Your task to perform on an android device: Is it going to rain today? Image 0: 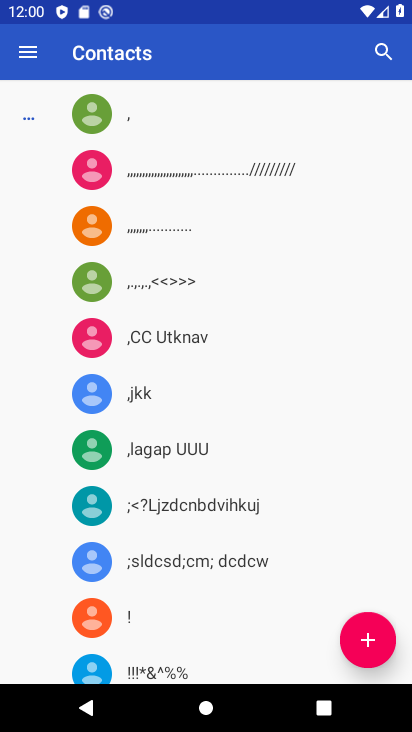
Step 0: press home button
Your task to perform on an android device: Is it going to rain today? Image 1: 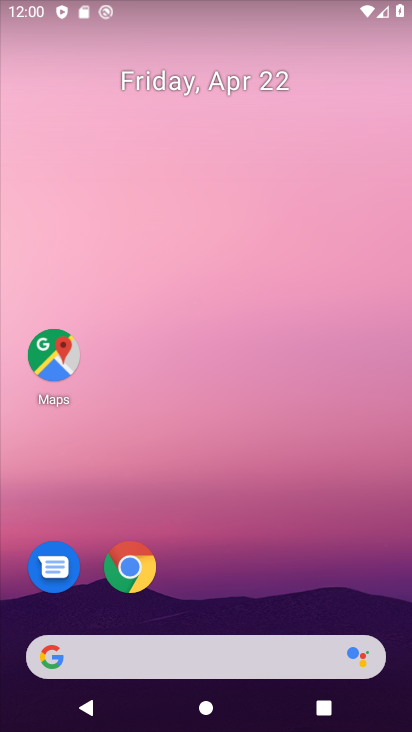
Step 1: click (137, 579)
Your task to perform on an android device: Is it going to rain today? Image 2: 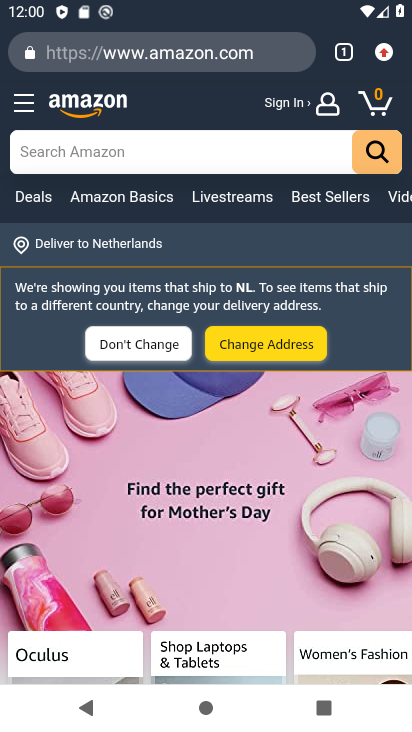
Step 2: click (190, 50)
Your task to perform on an android device: Is it going to rain today? Image 3: 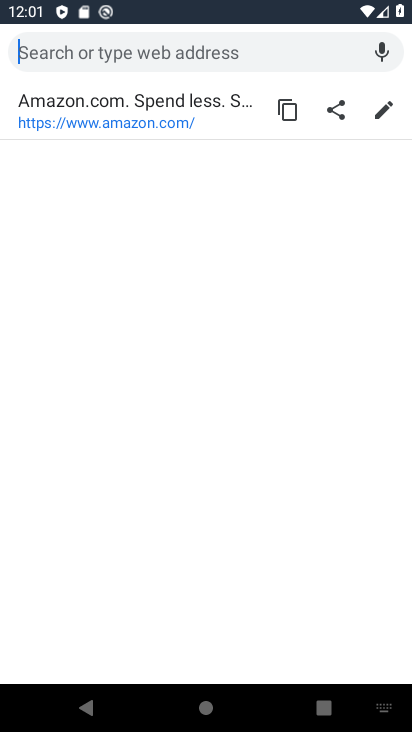
Step 3: type "is it going to rain today?"
Your task to perform on an android device: Is it going to rain today? Image 4: 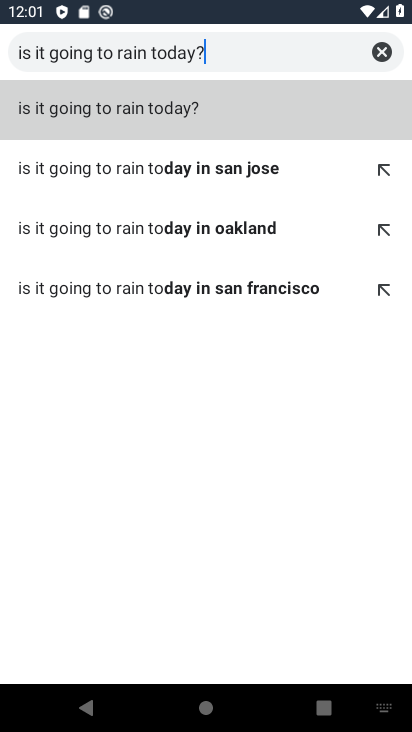
Step 4: click (124, 118)
Your task to perform on an android device: Is it going to rain today? Image 5: 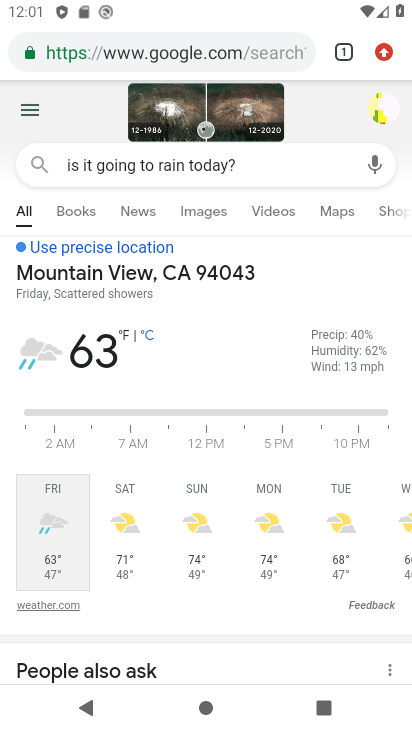
Step 5: task complete